Your task to perform on an android device: When is my next appointment? Image 0: 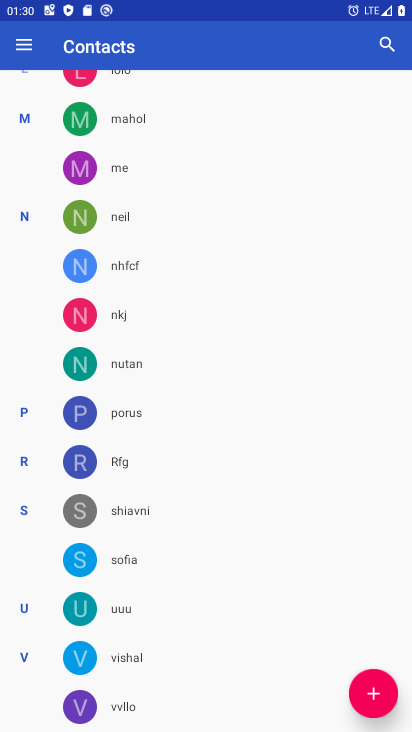
Step 0: press home button
Your task to perform on an android device: When is my next appointment? Image 1: 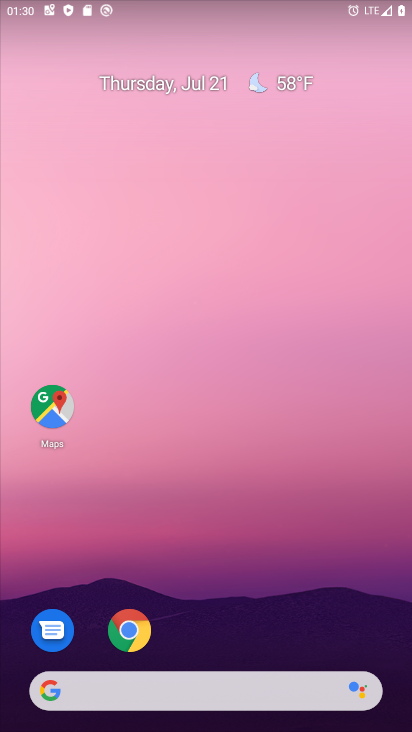
Step 1: click (128, 83)
Your task to perform on an android device: When is my next appointment? Image 2: 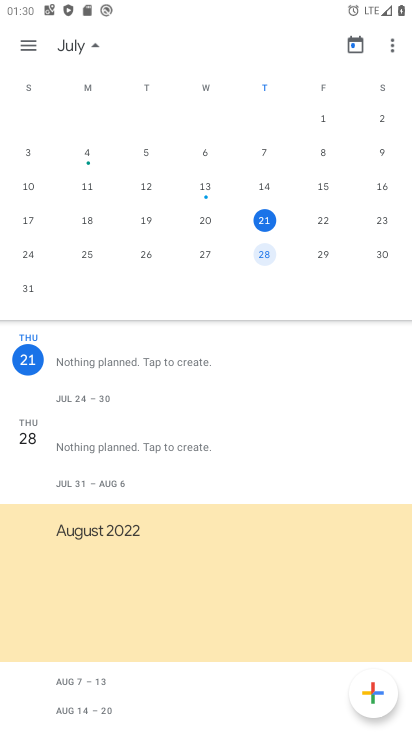
Step 2: task complete